Your task to perform on an android device: find snoozed emails in the gmail app Image 0: 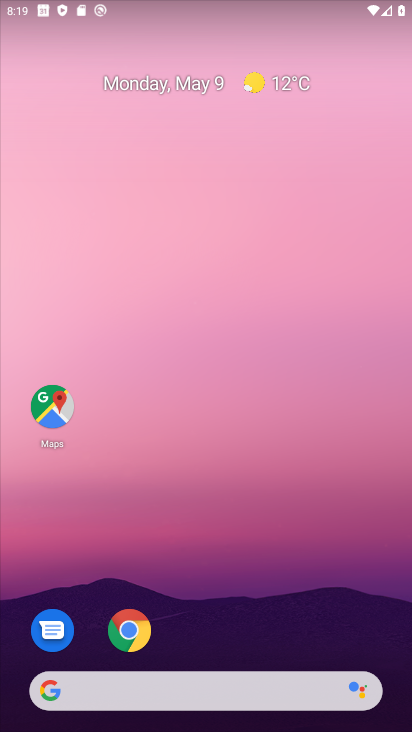
Step 0: drag from (238, 671) to (243, 361)
Your task to perform on an android device: find snoozed emails in the gmail app Image 1: 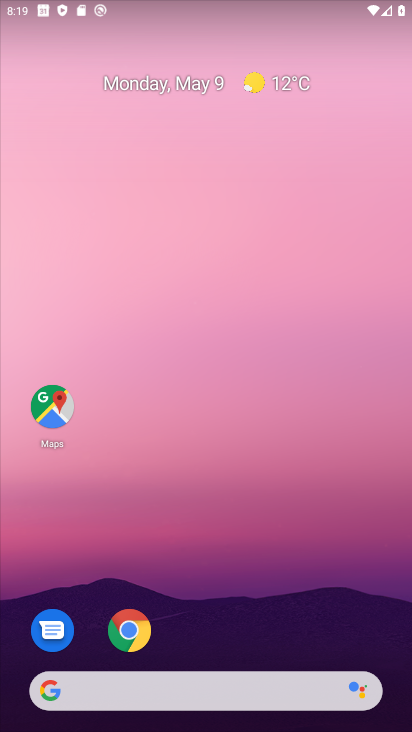
Step 1: drag from (209, 689) to (384, 236)
Your task to perform on an android device: find snoozed emails in the gmail app Image 2: 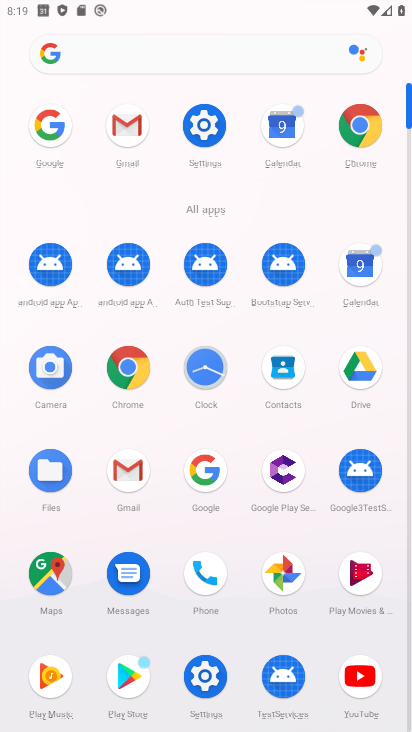
Step 2: click (139, 118)
Your task to perform on an android device: find snoozed emails in the gmail app Image 3: 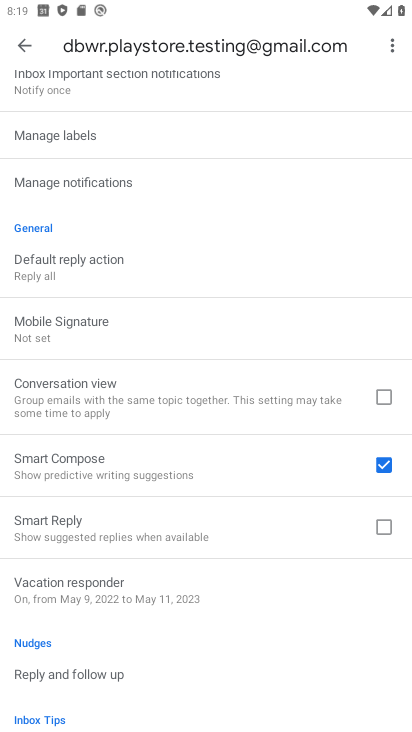
Step 3: click (23, 47)
Your task to perform on an android device: find snoozed emails in the gmail app Image 4: 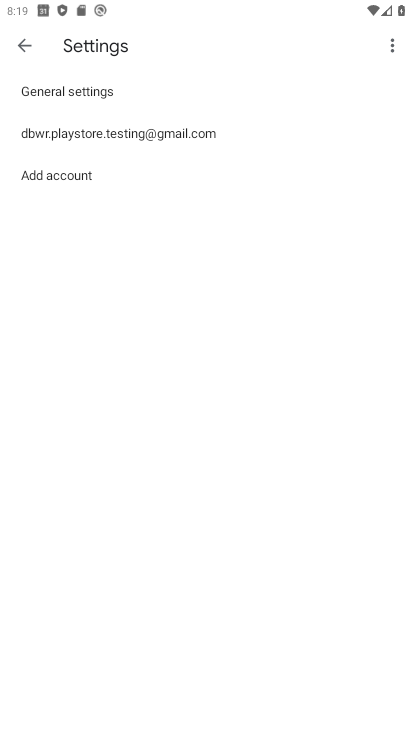
Step 4: click (21, 49)
Your task to perform on an android device: find snoozed emails in the gmail app Image 5: 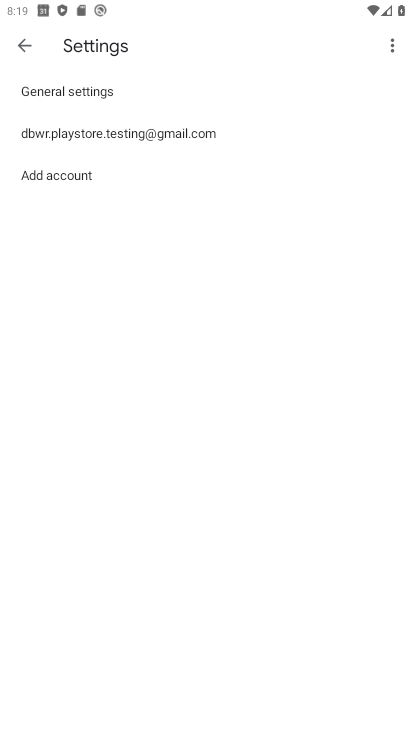
Step 5: click (22, 50)
Your task to perform on an android device: find snoozed emails in the gmail app Image 6: 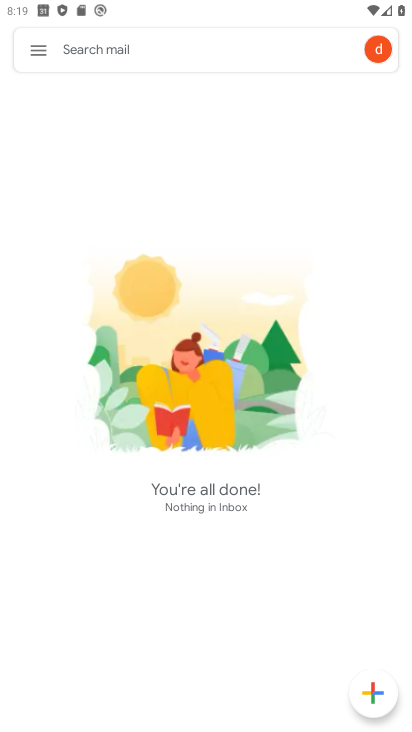
Step 6: click (41, 45)
Your task to perform on an android device: find snoozed emails in the gmail app Image 7: 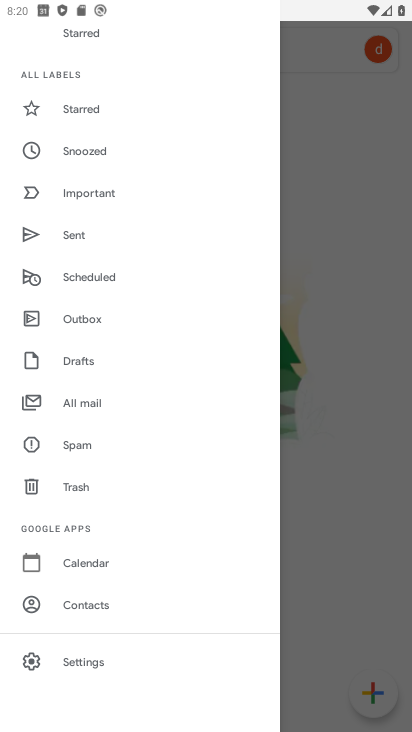
Step 7: click (93, 152)
Your task to perform on an android device: find snoozed emails in the gmail app Image 8: 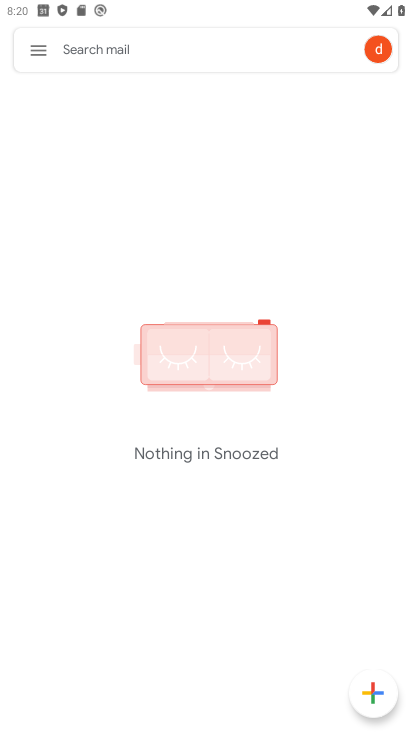
Step 8: task complete